Your task to perform on an android device: refresh tabs in the chrome app Image 0: 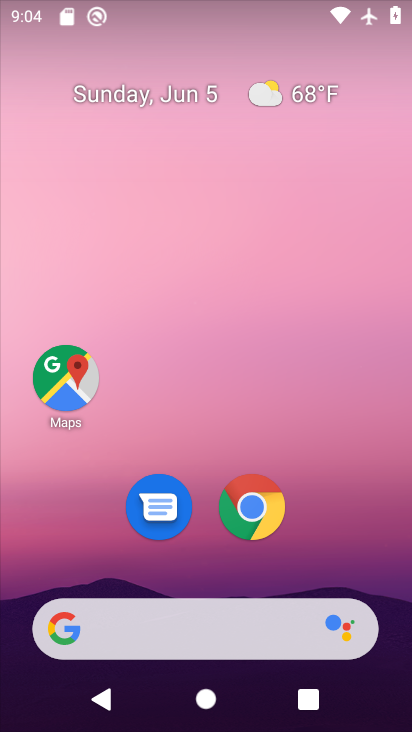
Step 0: click (261, 517)
Your task to perform on an android device: refresh tabs in the chrome app Image 1: 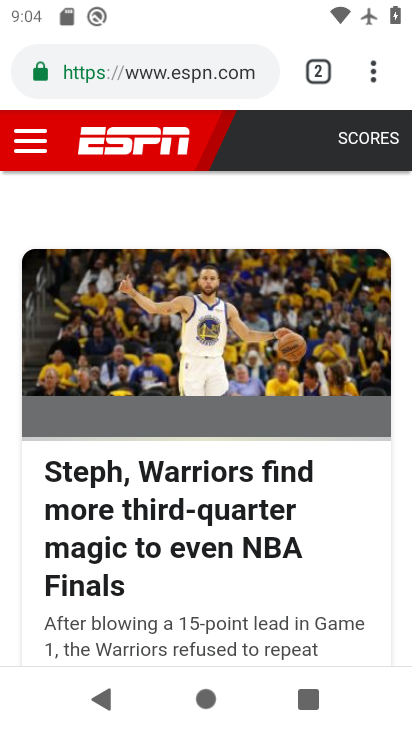
Step 1: click (373, 66)
Your task to perform on an android device: refresh tabs in the chrome app Image 2: 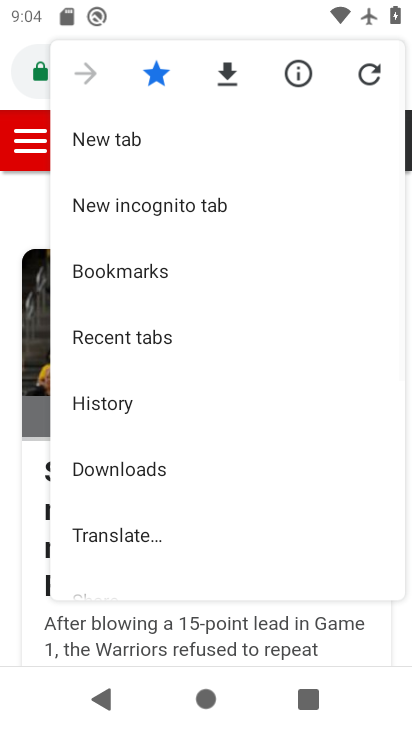
Step 2: click (370, 69)
Your task to perform on an android device: refresh tabs in the chrome app Image 3: 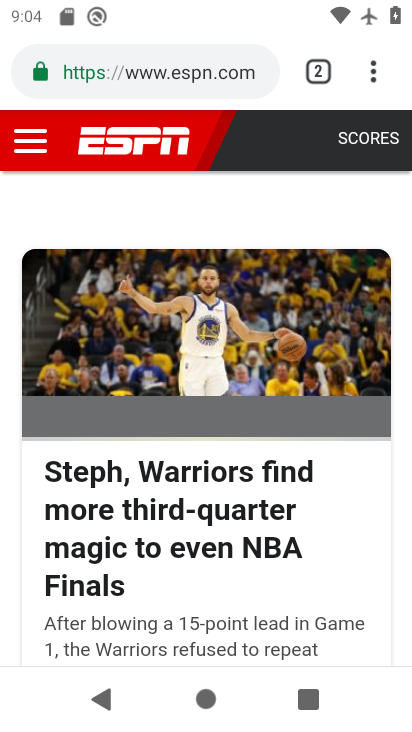
Step 3: task complete